Your task to perform on an android device: toggle javascript in the chrome app Image 0: 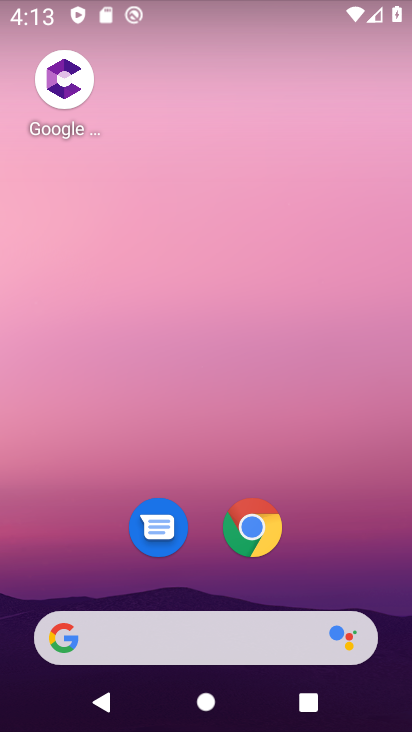
Step 0: click (268, 533)
Your task to perform on an android device: toggle javascript in the chrome app Image 1: 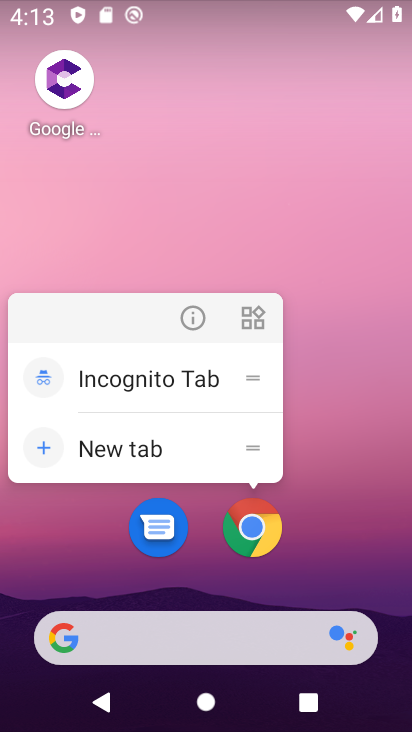
Step 1: click (268, 533)
Your task to perform on an android device: toggle javascript in the chrome app Image 2: 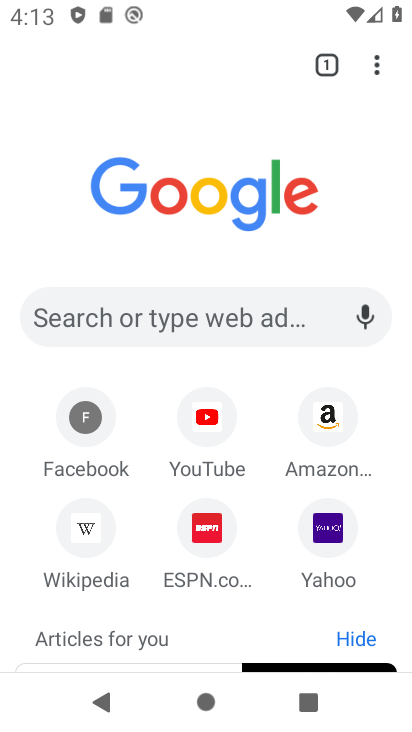
Step 2: drag from (386, 58) to (269, 552)
Your task to perform on an android device: toggle javascript in the chrome app Image 3: 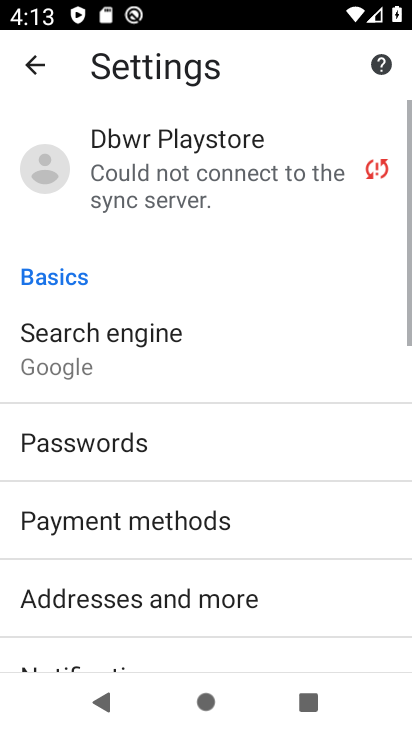
Step 3: drag from (228, 605) to (337, 174)
Your task to perform on an android device: toggle javascript in the chrome app Image 4: 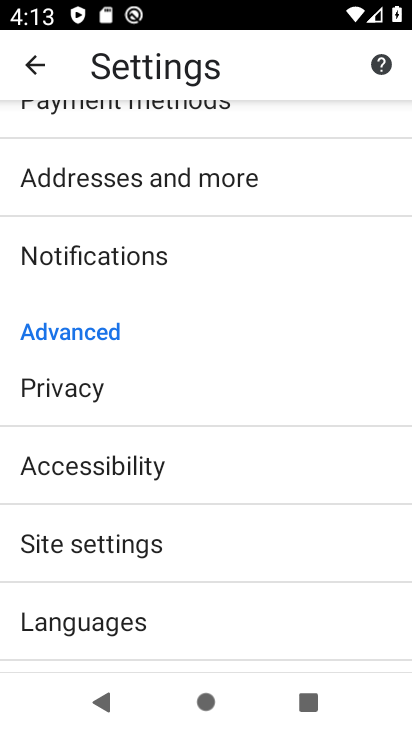
Step 4: click (209, 558)
Your task to perform on an android device: toggle javascript in the chrome app Image 5: 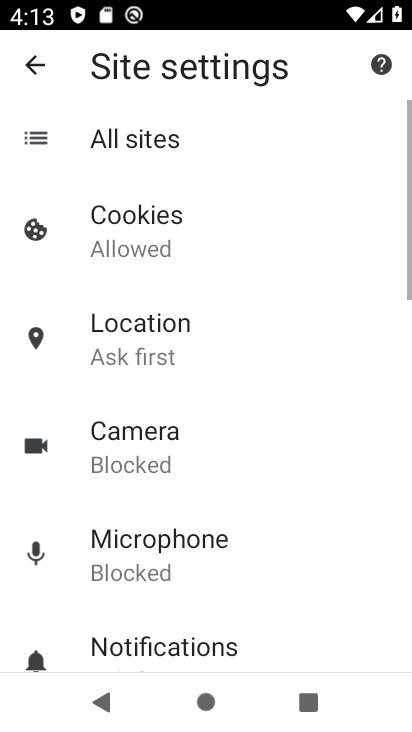
Step 5: drag from (195, 578) to (274, 274)
Your task to perform on an android device: toggle javascript in the chrome app Image 6: 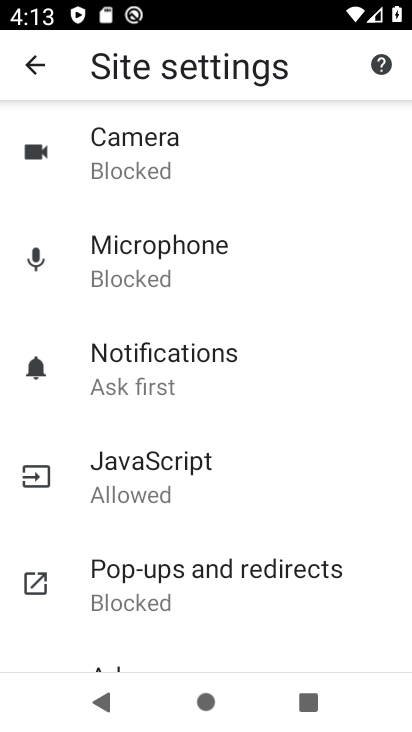
Step 6: click (220, 451)
Your task to perform on an android device: toggle javascript in the chrome app Image 7: 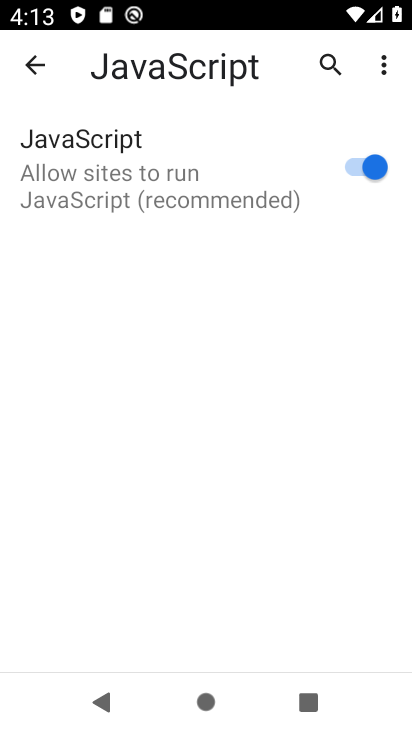
Step 7: click (359, 159)
Your task to perform on an android device: toggle javascript in the chrome app Image 8: 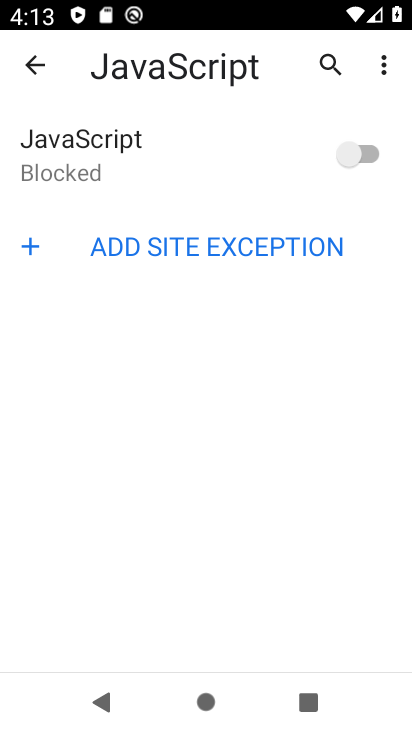
Step 8: task complete